Your task to perform on an android device: Search for vegetarian restaurants on Maps Image 0: 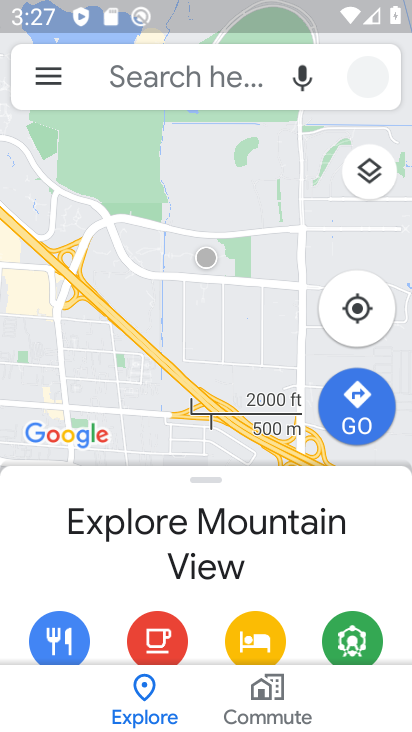
Step 0: press home button
Your task to perform on an android device: Search for vegetarian restaurants on Maps Image 1: 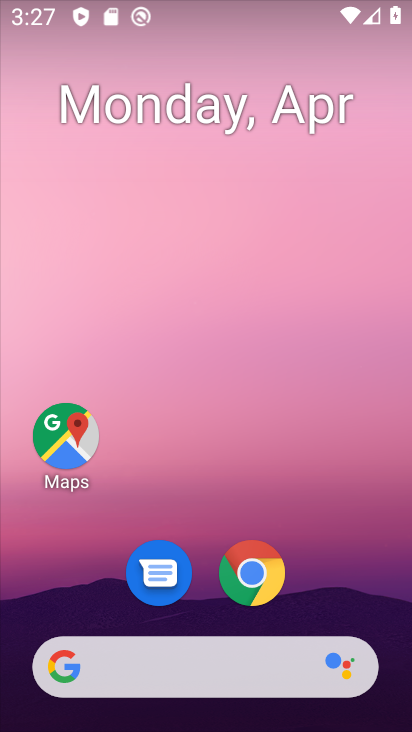
Step 1: drag from (359, 581) to (362, 80)
Your task to perform on an android device: Search for vegetarian restaurants on Maps Image 2: 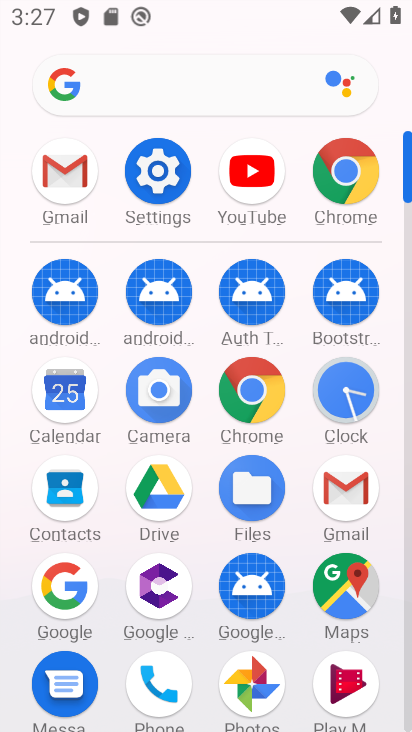
Step 2: click (350, 593)
Your task to perform on an android device: Search for vegetarian restaurants on Maps Image 3: 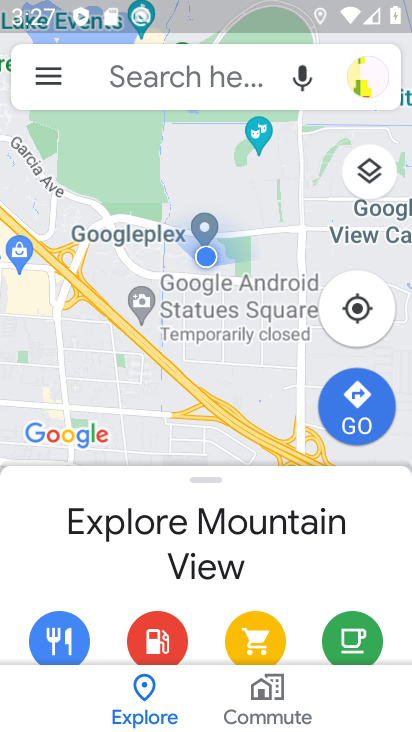
Step 3: click (168, 84)
Your task to perform on an android device: Search for vegetarian restaurants on Maps Image 4: 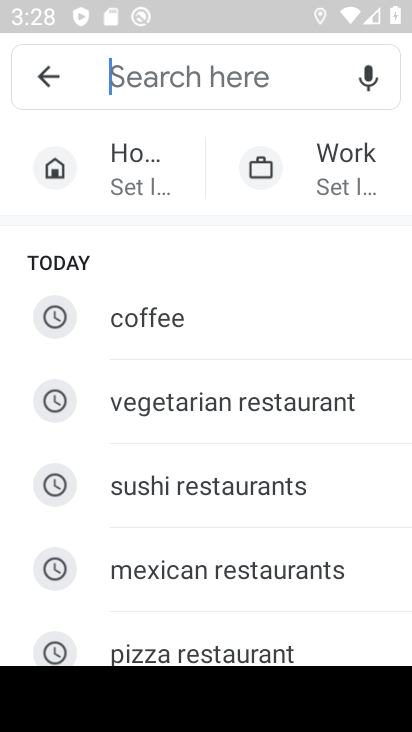
Step 4: type "vegetrain restaurants"
Your task to perform on an android device: Search for vegetarian restaurants on Maps Image 5: 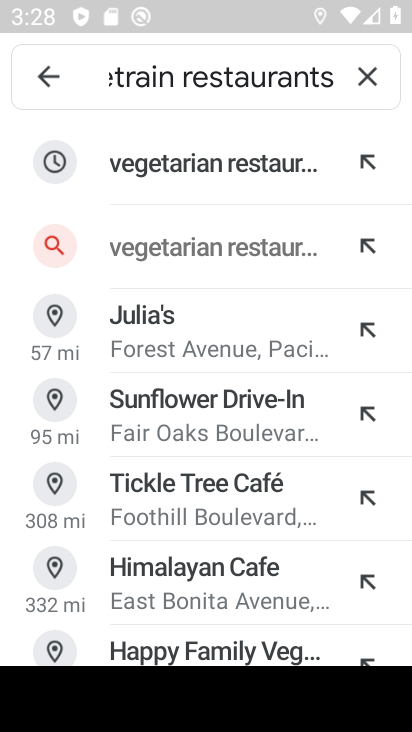
Step 5: click (175, 172)
Your task to perform on an android device: Search for vegetarian restaurants on Maps Image 6: 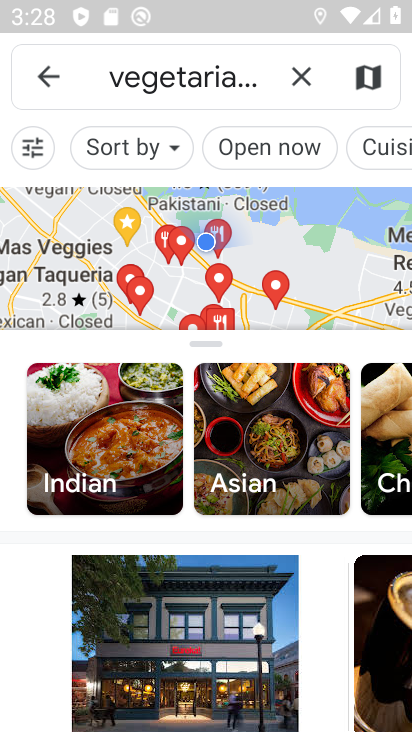
Step 6: task complete